Your task to perform on an android device: Open Google Maps and go to "Timeline" Image 0: 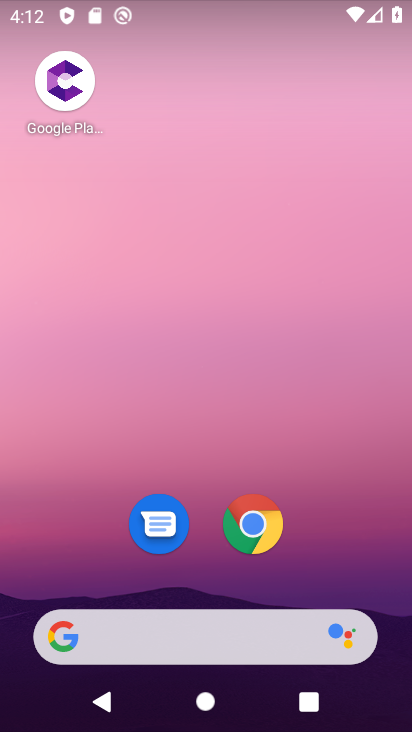
Step 0: drag from (226, 416) to (218, 36)
Your task to perform on an android device: Open Google Maps and go to "Timeline" Image 1: 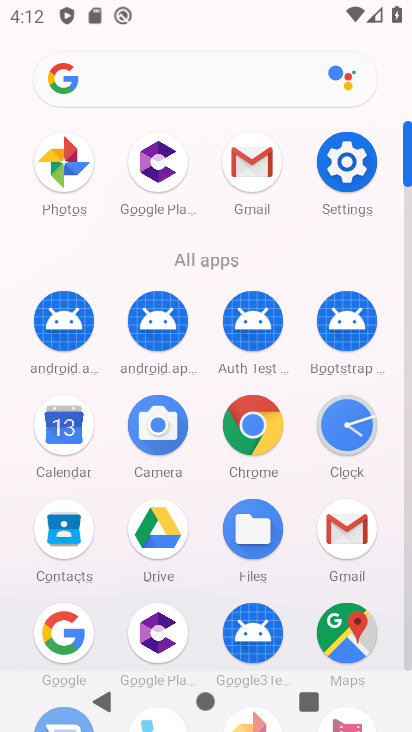
Step 1: click (349, 628)
Your task to perform on an android device: Open Google Maps and go to "Timeline" Image 2: 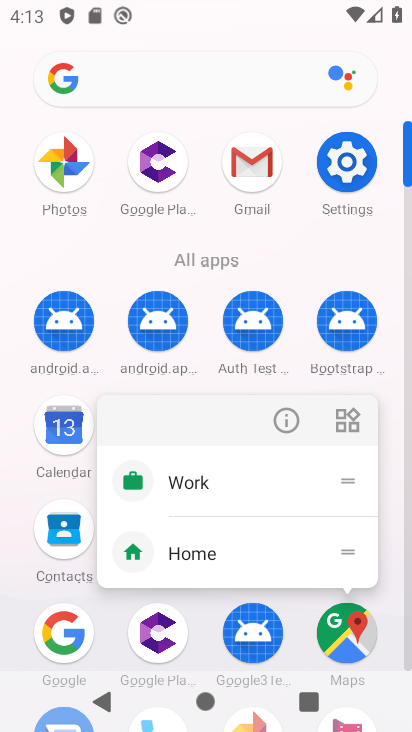
Step 2: click (352, 633)
Your task to perform on an android device: Open Google Maps and go to "Timeline" Image 3: 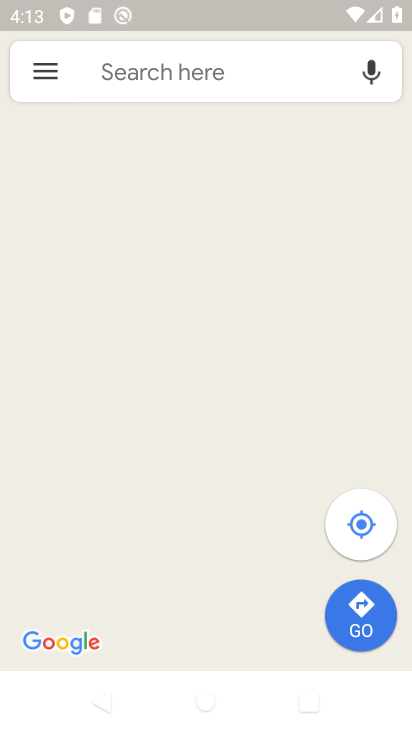
Step 3: click (41, 76)
Your task to perform on an android device: Open Google Maps and go to "Timeline" Image 4: 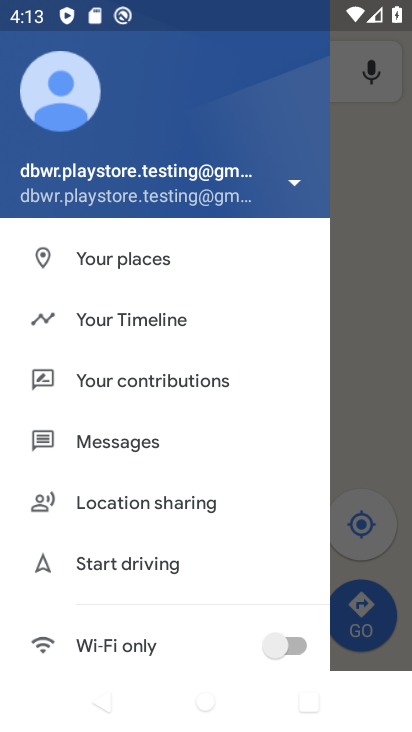
Step 4: click (151, 309)
Your task to perform on an android device: Open Google Maps and go to "Timeline" Image 5: 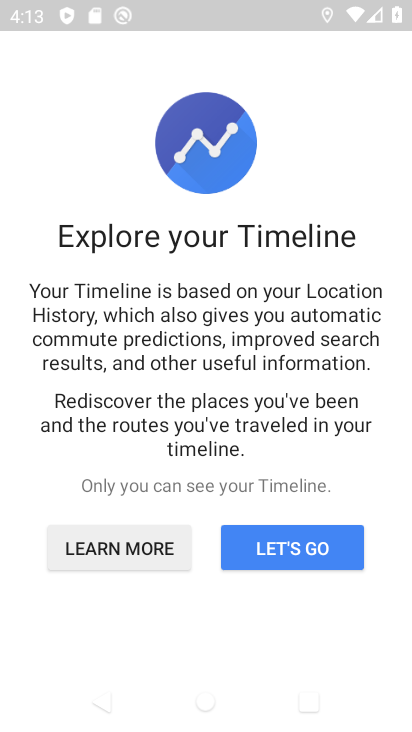
Step 5: click (293, 543)
Your task to perform on an android device: Open Google Maps and go to "Timeline" Image 6: 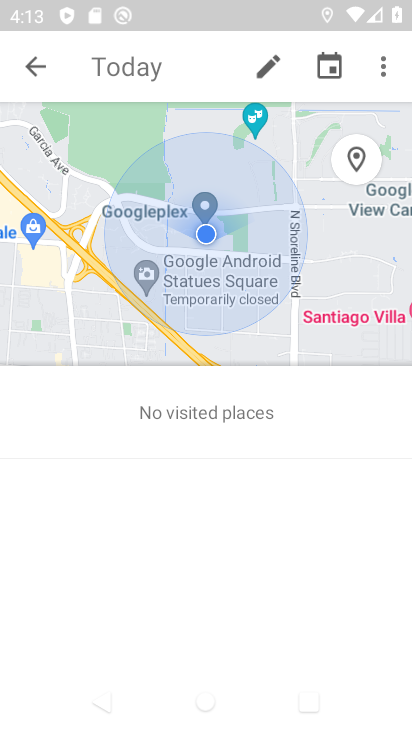
Step 6: task complete